Your task to perform on an android device: clear history in the chrome app Image 0: 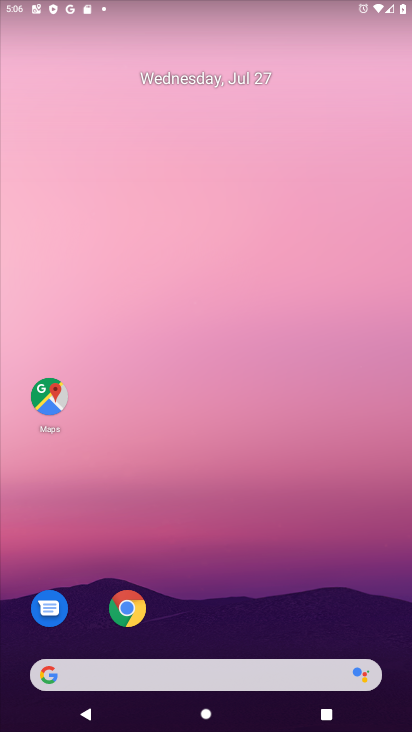
Step 0: click (127, 621)
Your task to perform on an android device: clear history in the chrome app Image 1: 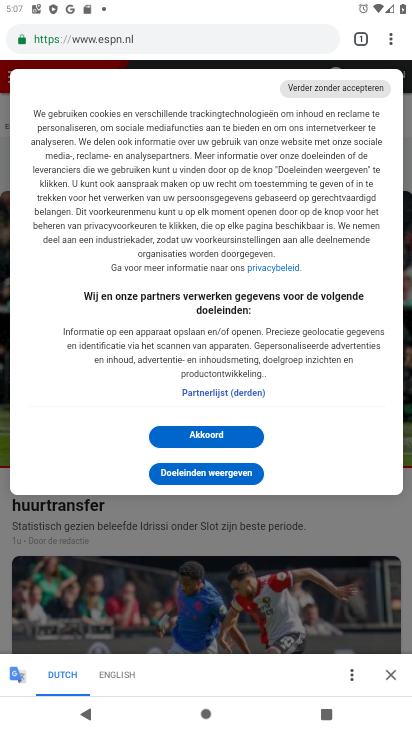
Step 1: click (385, 32)
Your task to perform on an android device: clear history in the chrome app Image 2: 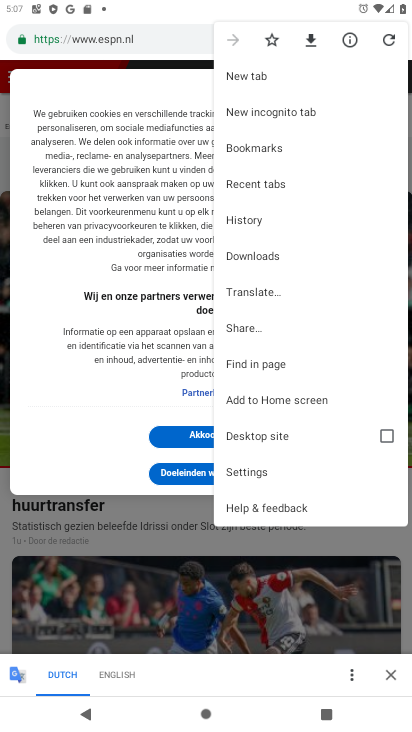
Step 2: click (238, 205)
Your task to perform on an android device: clear history in the chrome app Image 3: 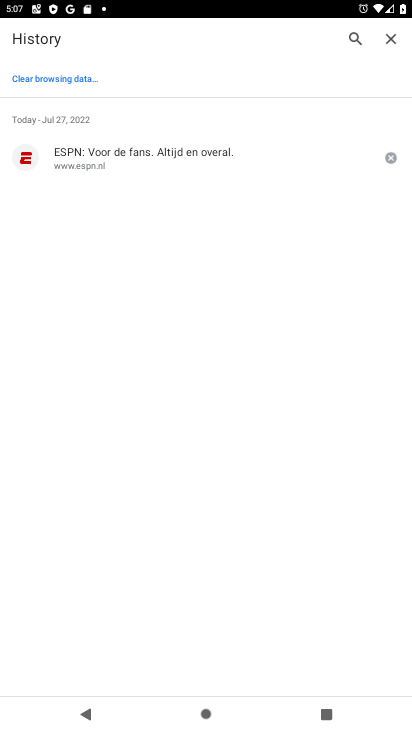
Step 3: click (29, 79)
Your task to perform on an android device: clear history in the chrome app Image 4: 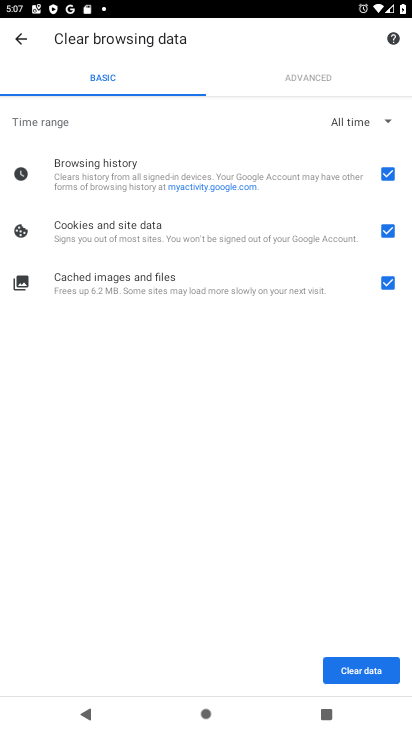
Step 4: click (370, 660)
Your task to perform on an android device: clear history in the chrome app Image 5: 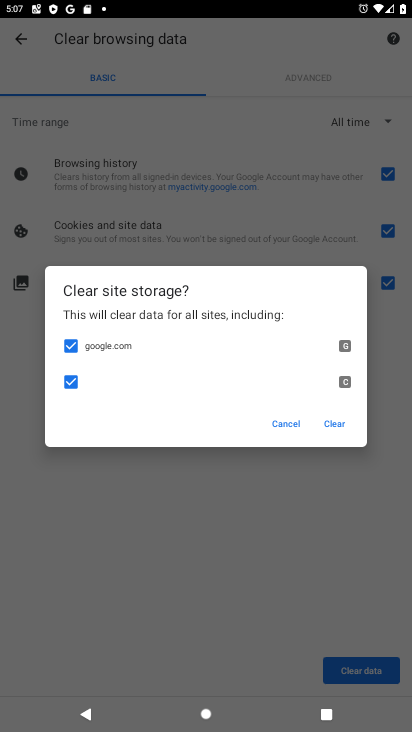
Step 5: click (330, 419)
Your task to perform on an android device: clear history in the chrome app Image 6: 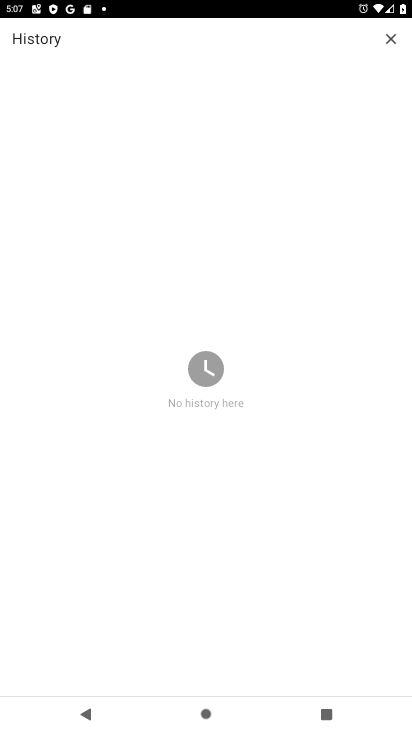
Step 6: task complete